Your task to perform on an android device: Open Amazon Image 0: 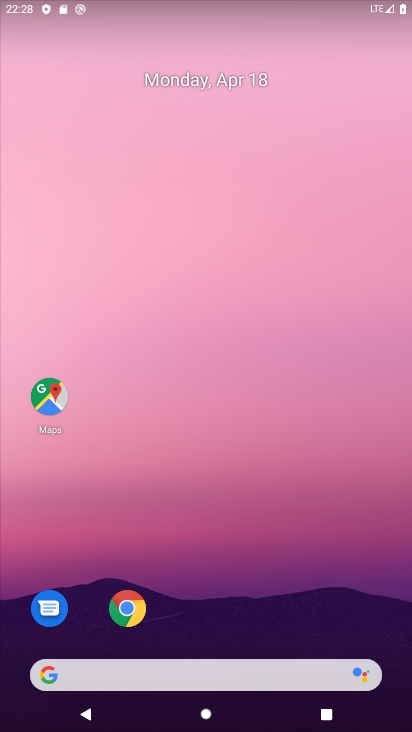
Step 0: click (126, 607)
Your task to perform on an android device: Open Amazon Image 1: 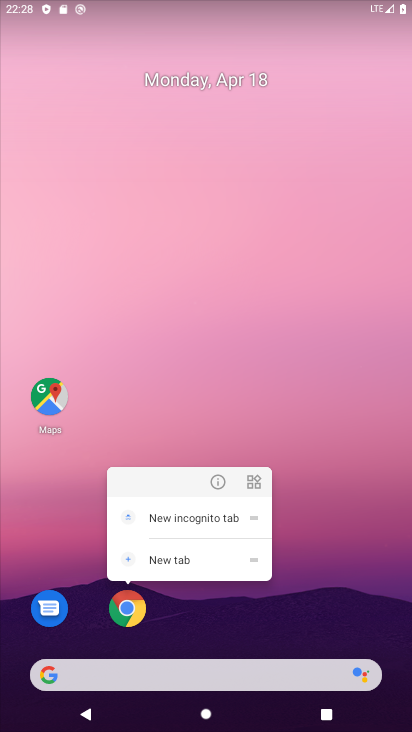
Step 1: click (128, 618)
Your task to perform on an android device: Open Amazon Image 2: 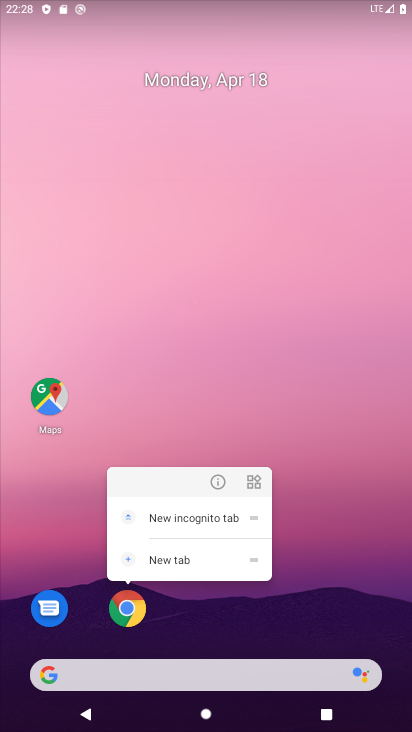
Step 2: click (126, 614)
Your task to perform on an android device: Open Amazon Image 3: 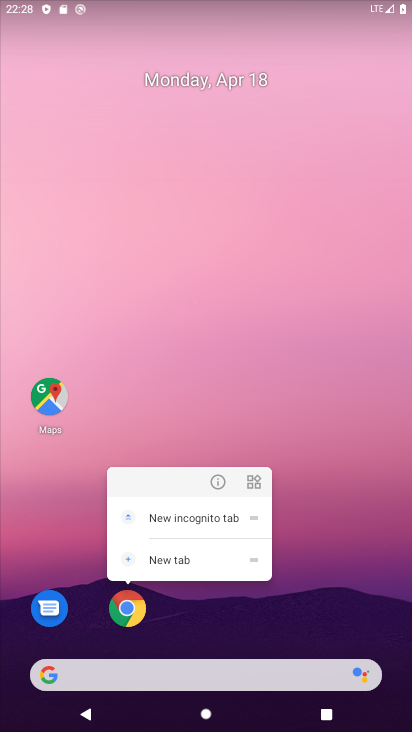
Step 3: click (126, 610)
Your task to perform on an android device: Open Amazon Image 4: 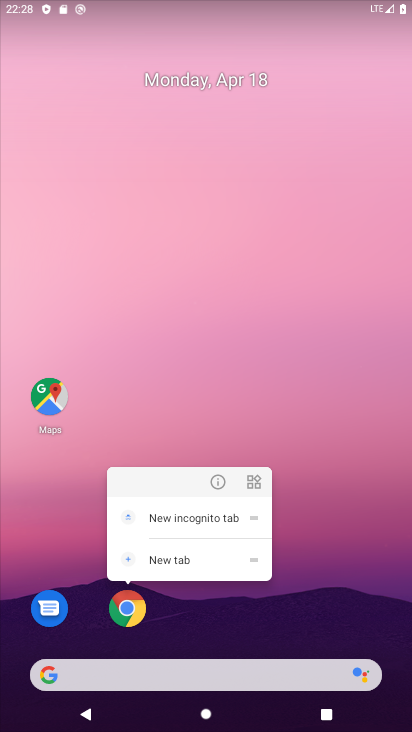
Step 4: click (126, 609)
Your task to perform on an android device: Open Amazon Image 5: 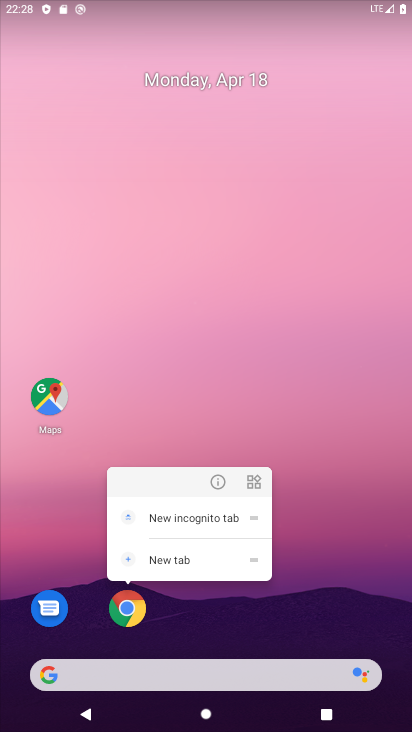
Step 5: click (126, 614)
Your task to perform on an android device: Open Amazon Image 6: 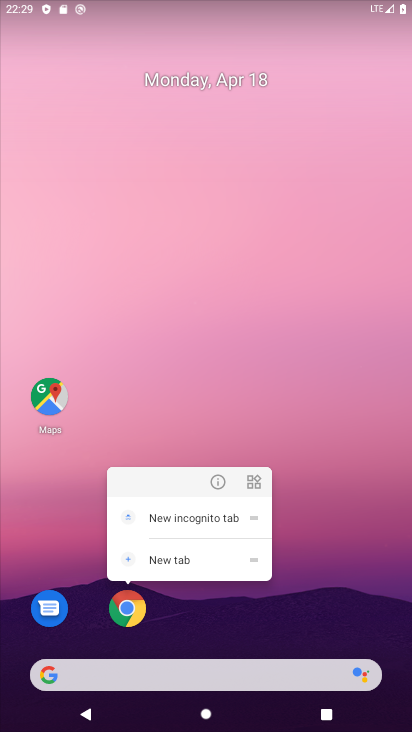
Step 6: click (125, 608)
Your task to perform on an android device: Open Amazon Image 7: 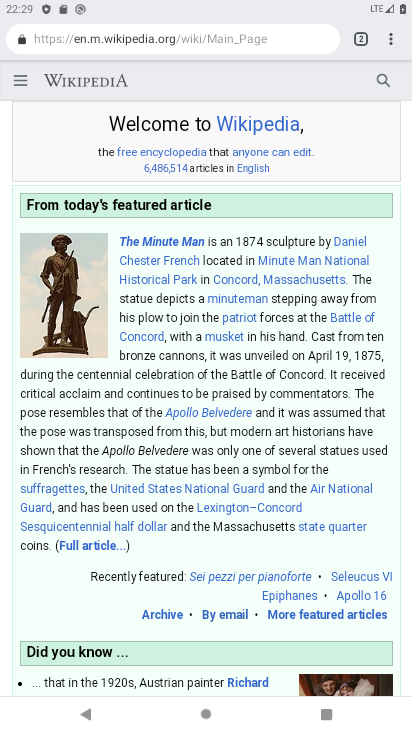
Step 7: click (355, 34)
Your task to perform on an android device: Open Amazon Image 8: 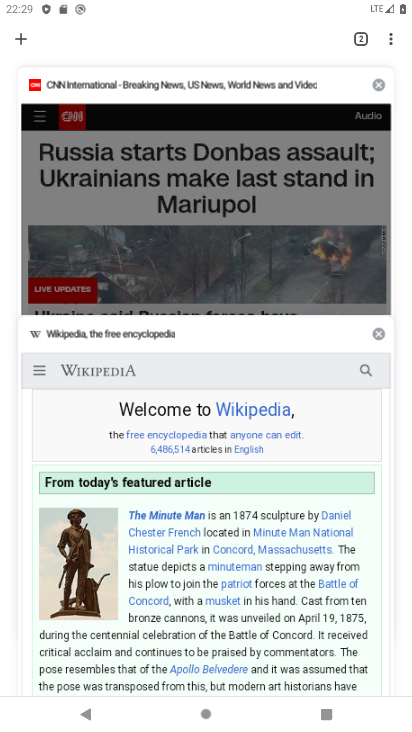
Step 8: click (20, 38)
Your task to perform on an android device: Open Amazon Image 9: 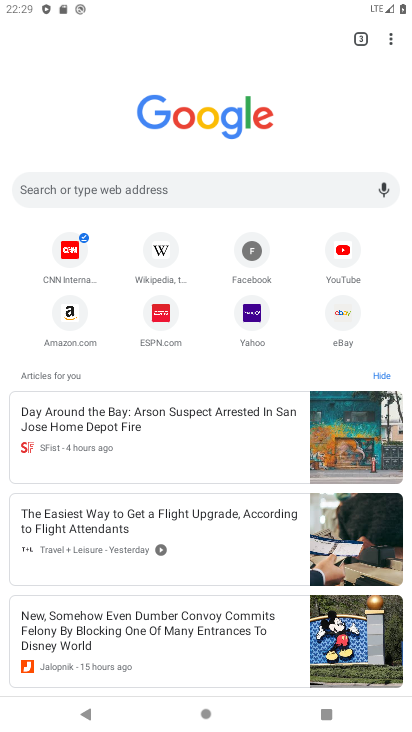
Step 9: click (69, 316)
Your task to perform on an android device: Open Amazon Image 10: 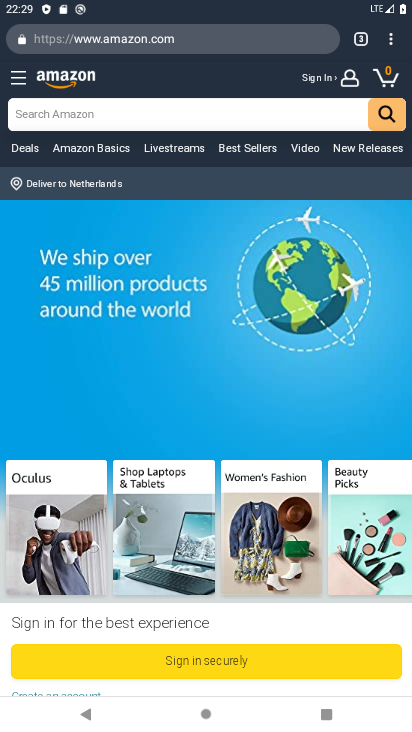
Step 10: task complete